Your task to perform on an android device: open device folders in google photos Image 0: 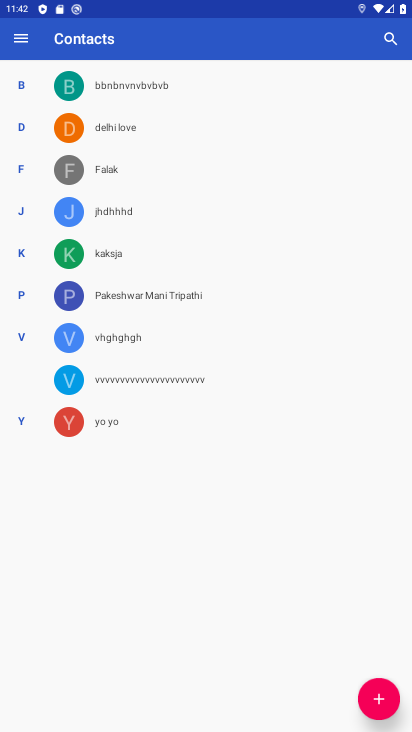
Step 0: press home button
Your task to perform on an android device: open device folders in google photos Image 1: 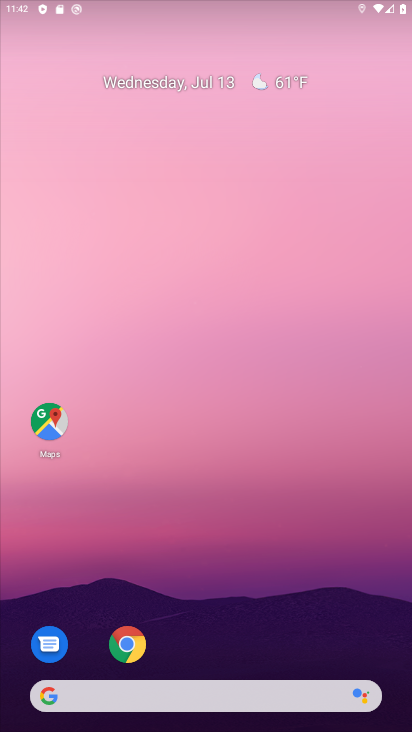
Step 1: drag from (217, 581) to (241, 140)
Your task to perform on an android device: open device folders in google photos Image 2: 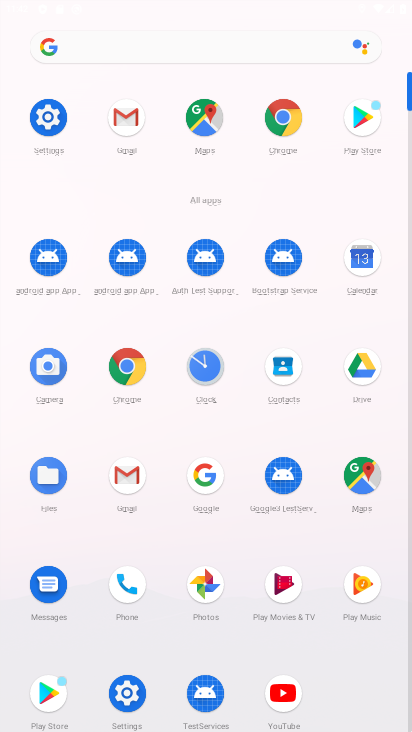
Step 2: click (209, 585)
Your task to perform on an android device: open device folders in google photos Image 3: 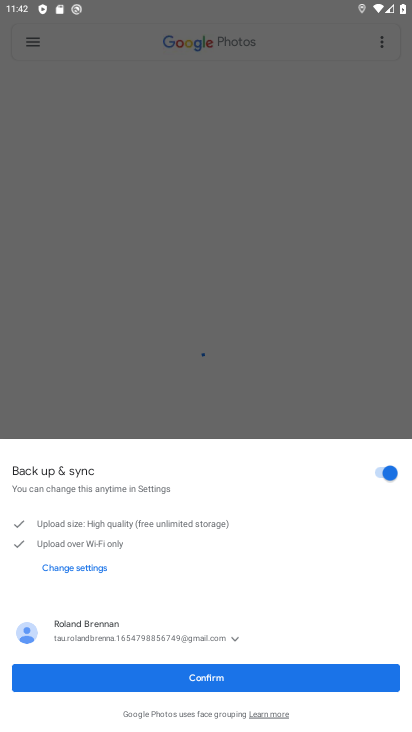
Step 3: click (241, 670)
Your task to perform on an android device: open device folders in google photos Image 4: 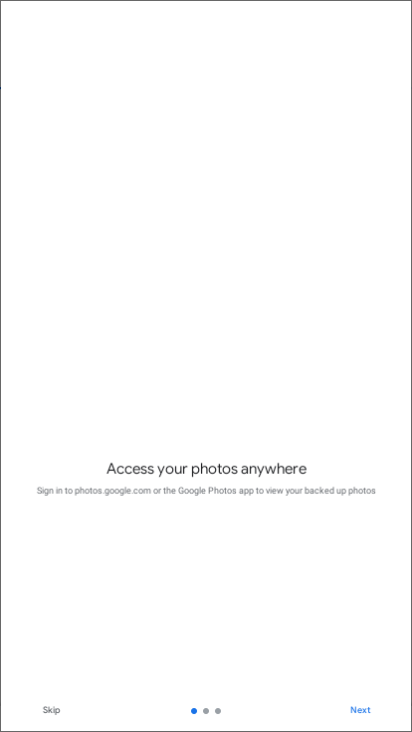
Step 4: drag from (238, 653) to (211, 295)
Your task to perform on an android device: open device folders in google photos Image 5: 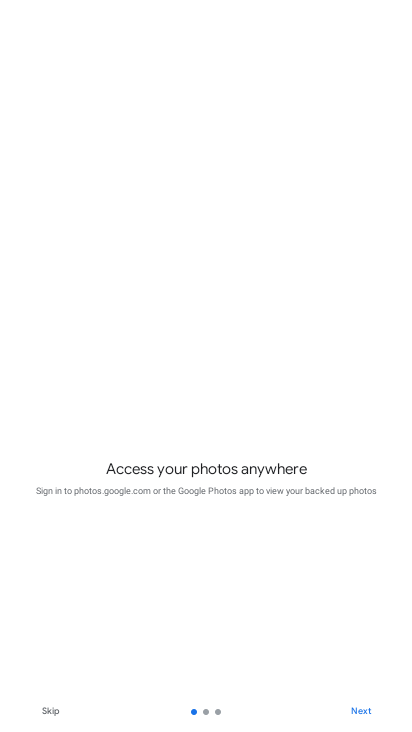
Step 5: click (372, 713)
Your task to perform on an android device: open device folders in google photos Image 6: 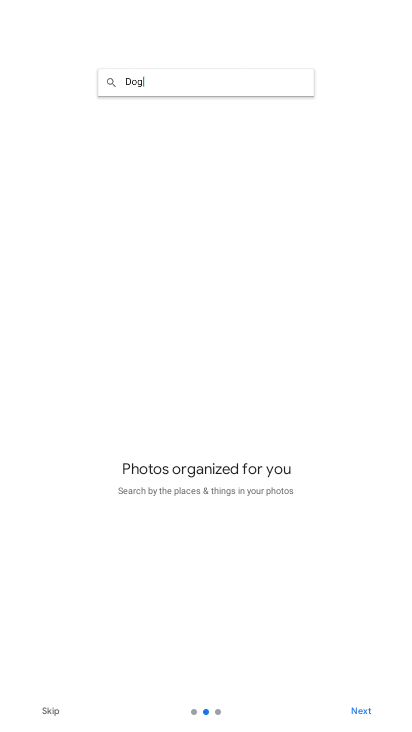
Step 6: click (372, 713)
Your task to perform on an android device: open device folders in google photos Image 7: 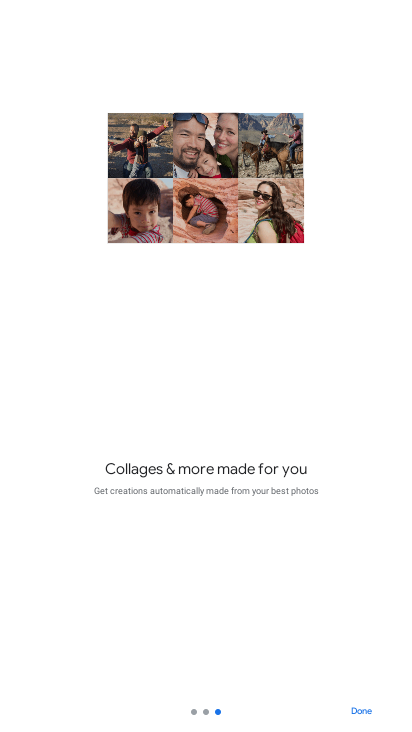
Step 7: click (372, 713)
Your task to perform on an android device: open device folders in google photos Image 8: 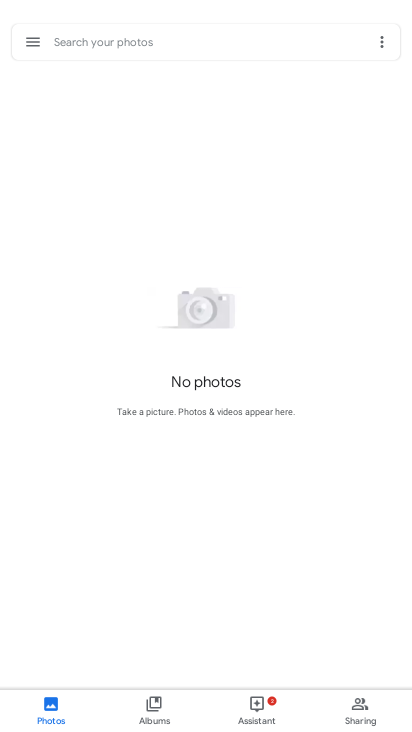
Step 8: click (31, 40)
Your task to perform on an android device: open device folders in google photos Image 9: 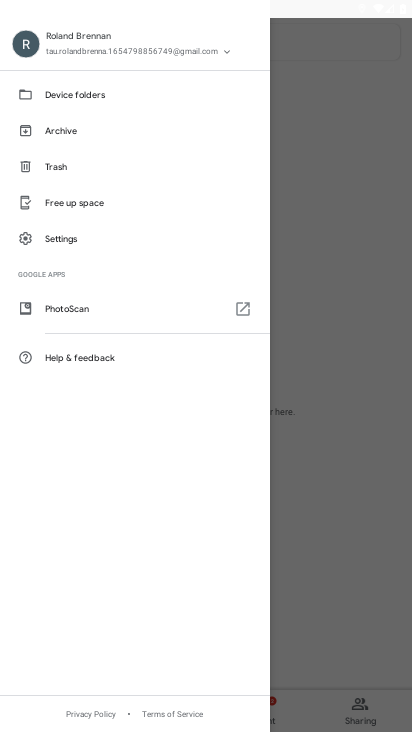
Step 9: click (79, 90)
Your task to perform on an android device: open device folders in google photos Image 10: 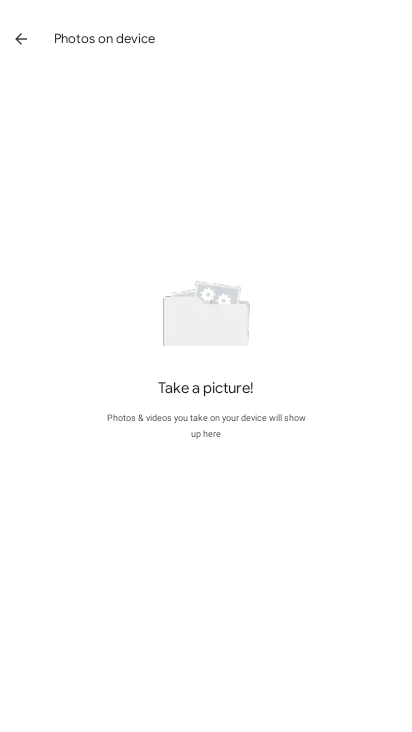
Step 10: task complete